Your task to perform on an android device: How big is the earth? Image 0: 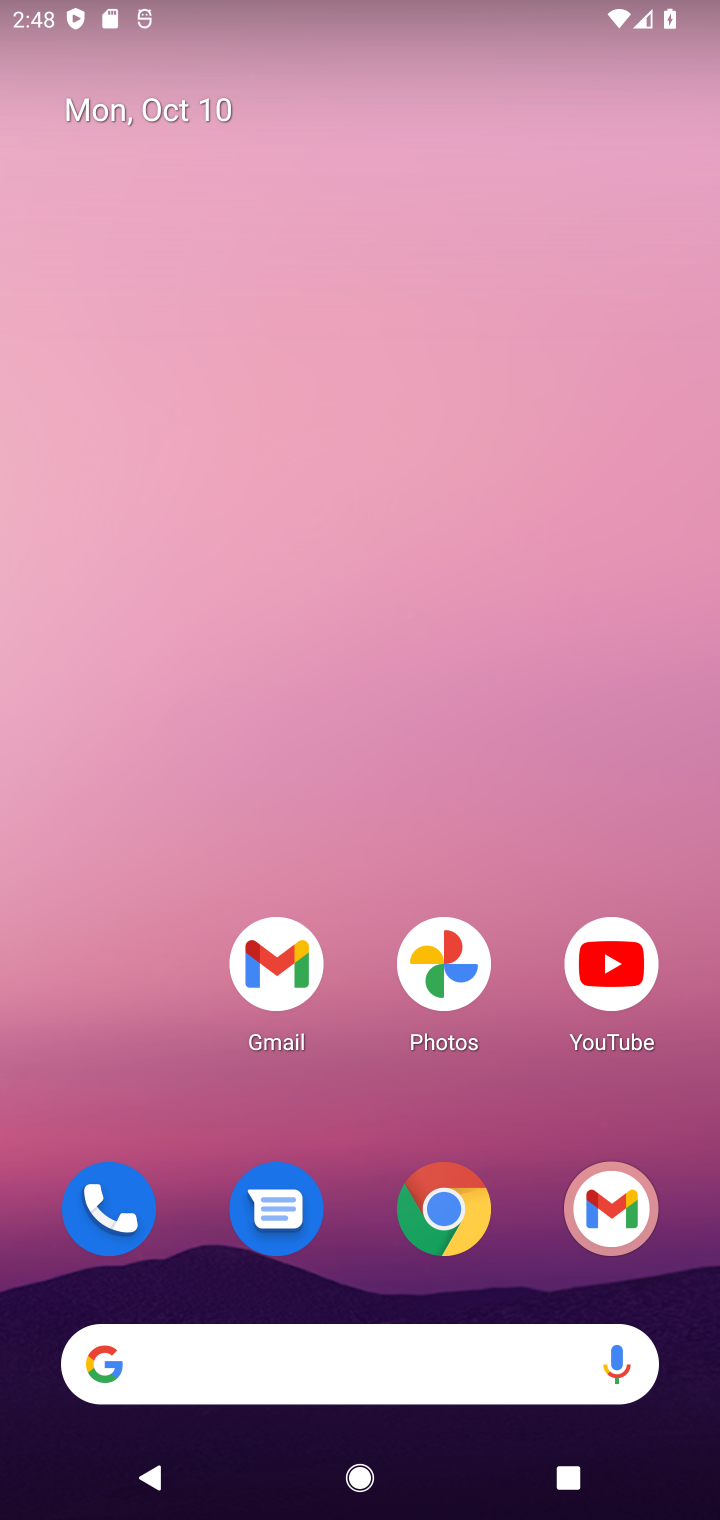
Step 0: click (459, 1199)
Your task to perform on an android device: How big is the earth? Image 1: 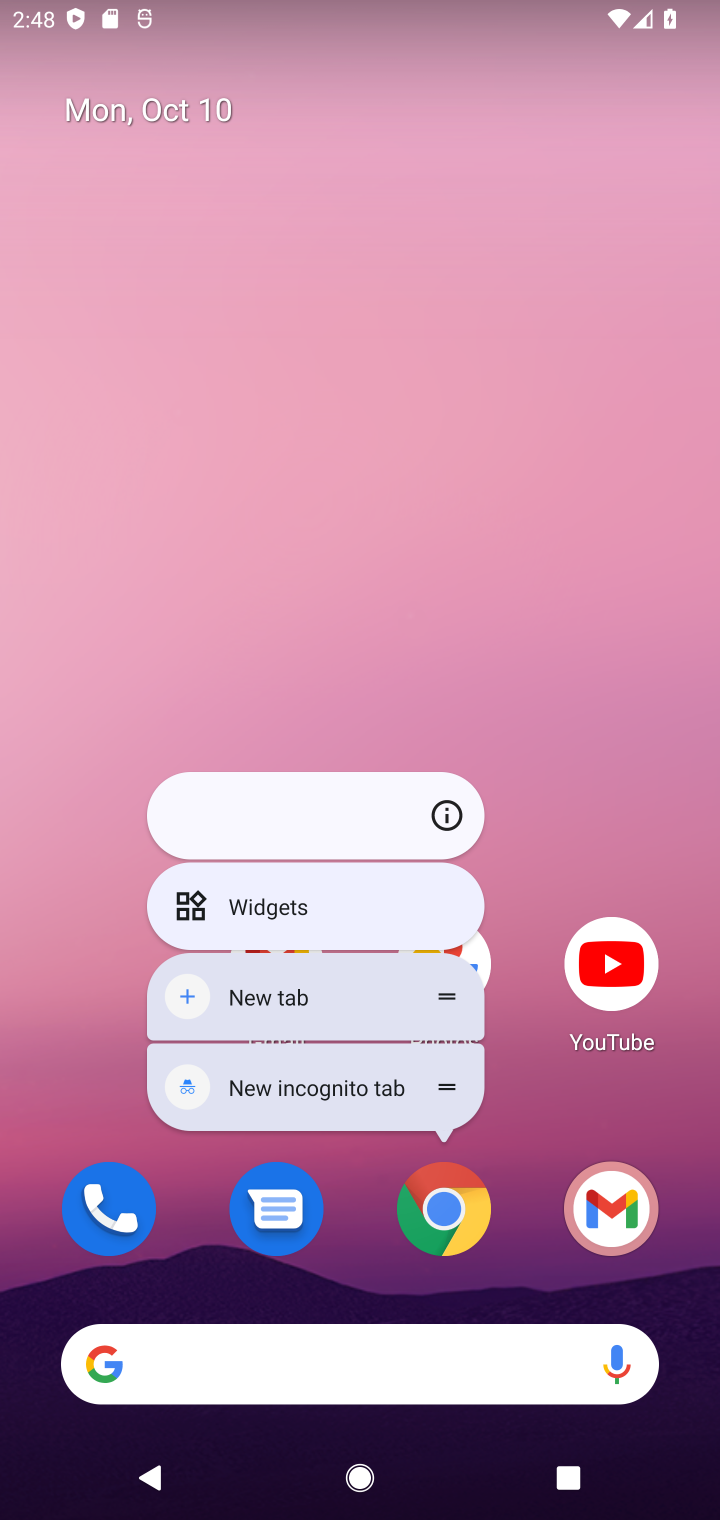
Step 1: click (431, 1222)
Your task to perform on an android device: How big is the earth? Image 2: 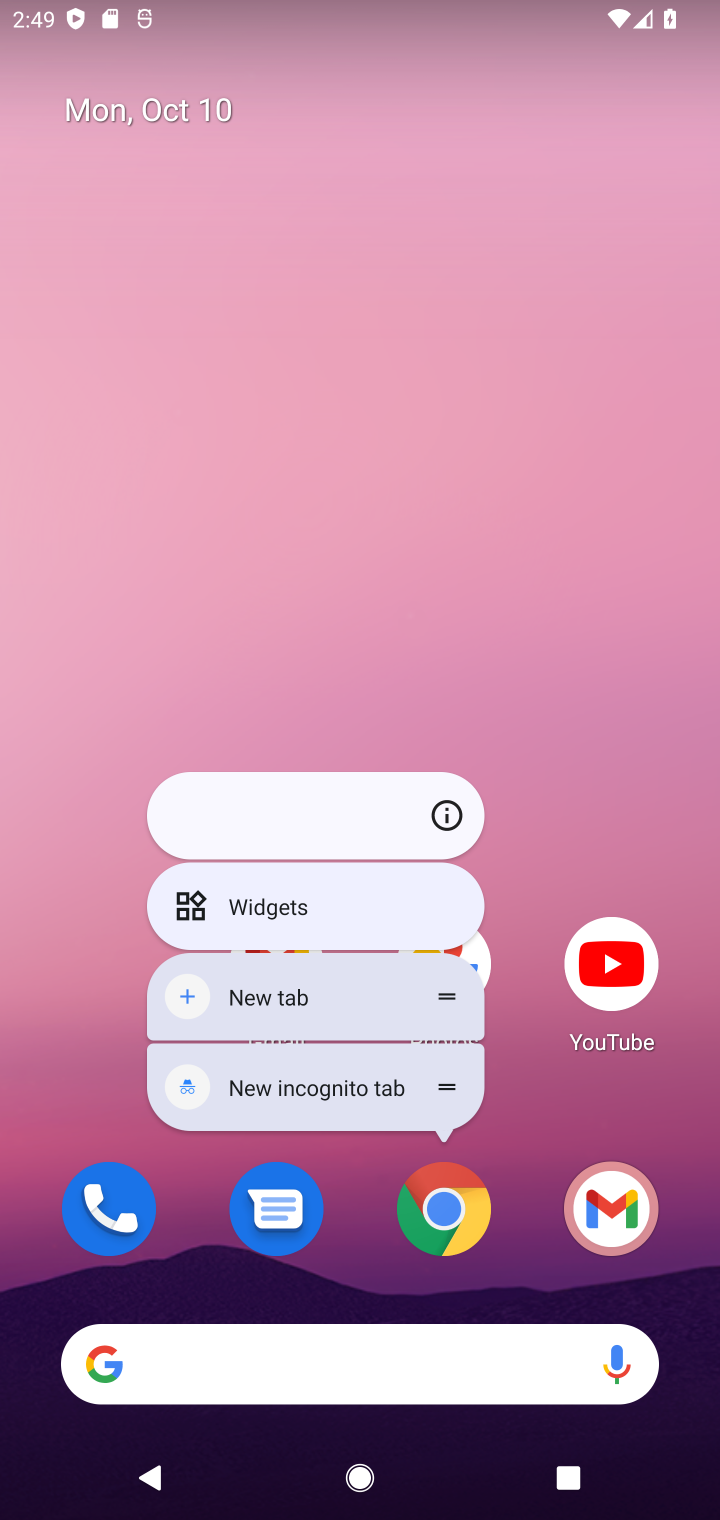
Step 2: click (431, 1222)
Your task to perform on an android device: How big is the earth? Image 3: 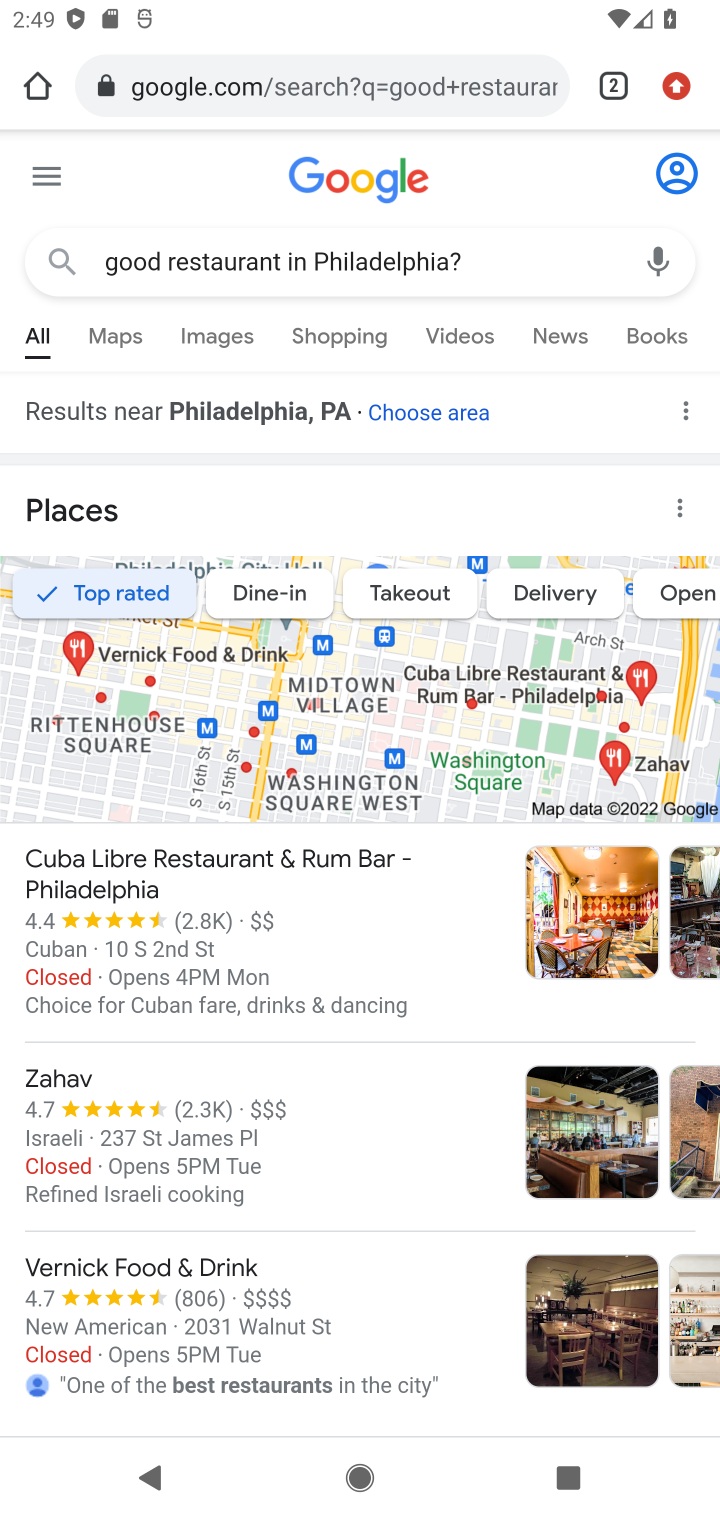
Step 3: click (477, 279)
Your task to perform on an android device: How big is the earth? Image 4: 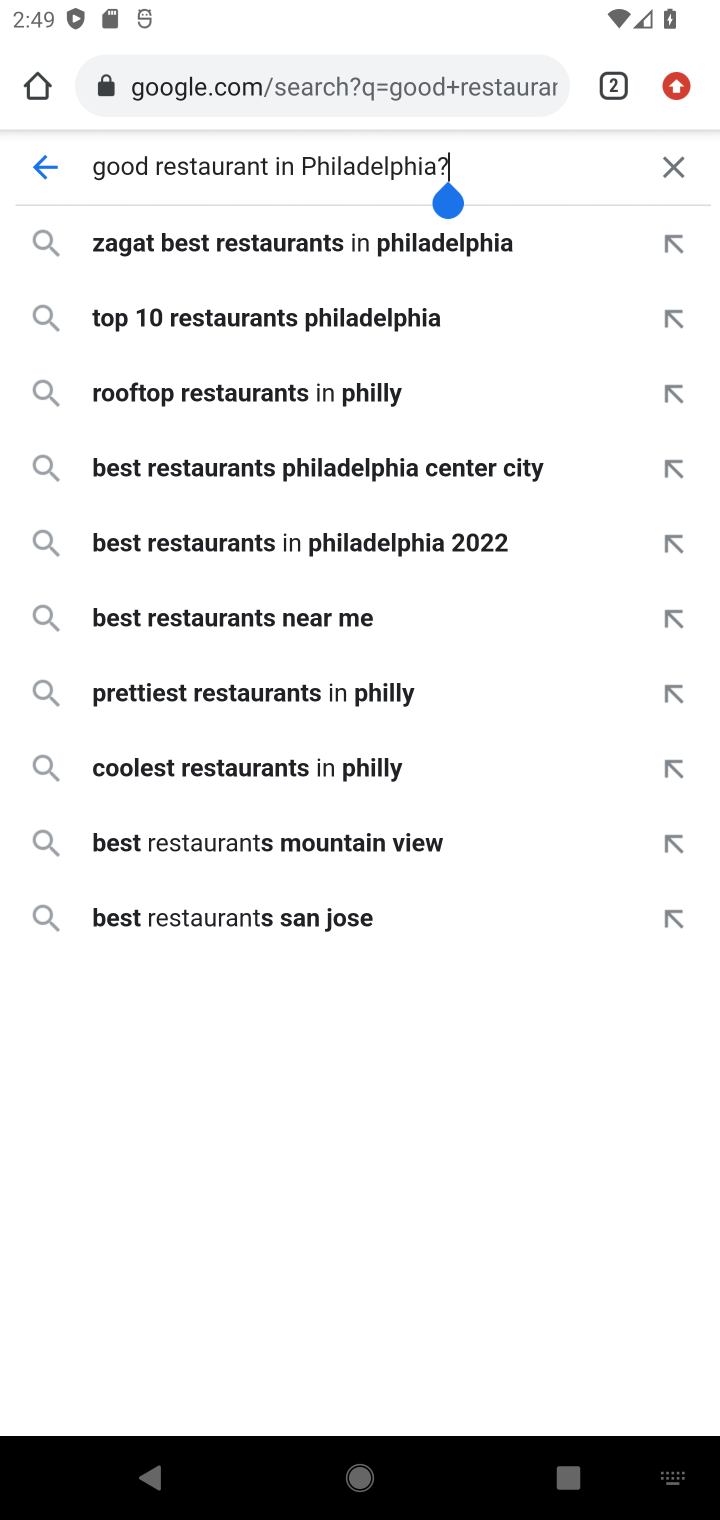
Step 4: click (672, 180)
Your task to perform on an android device: How big is the earth? Image 5: 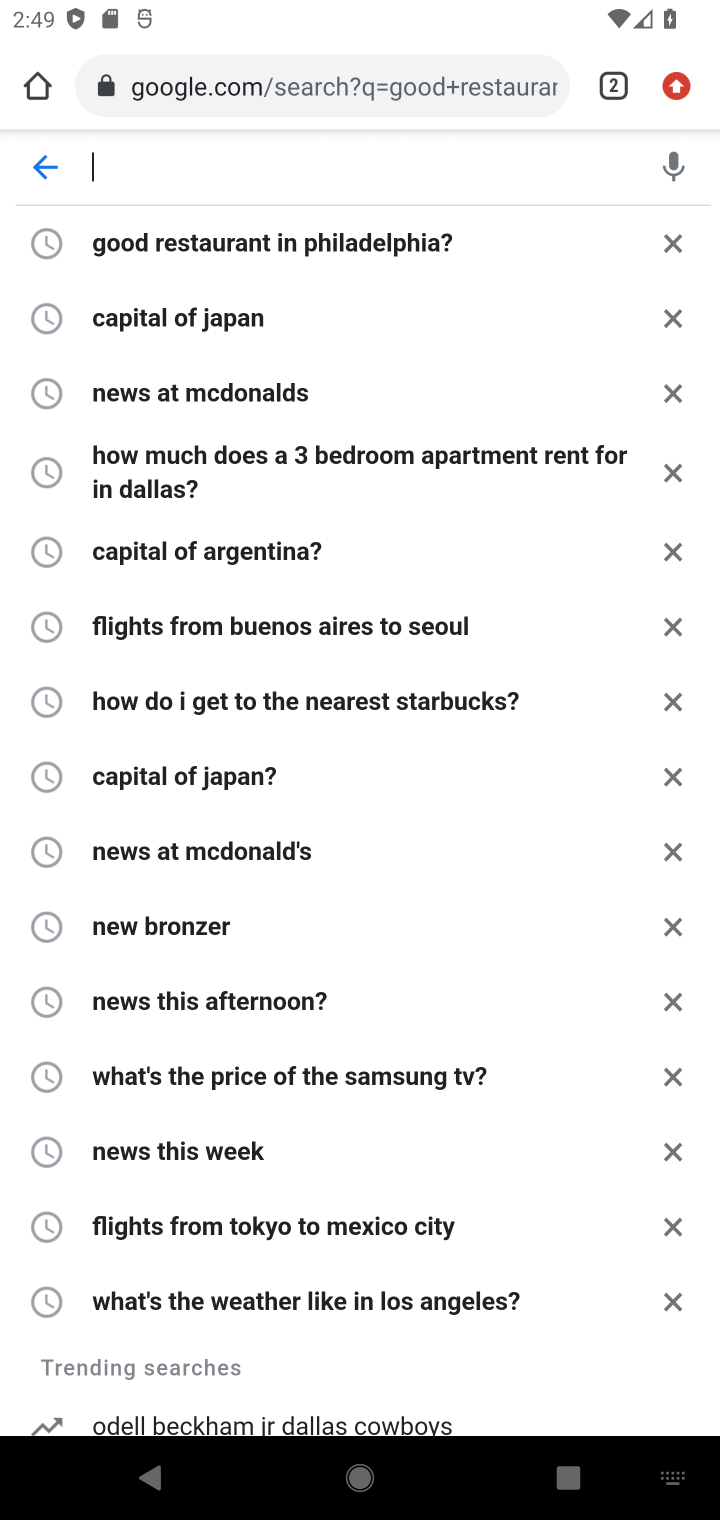
Step 5: type "How big is the earth?"
Your task to perform on an android device: How big is the earth? Image 6: 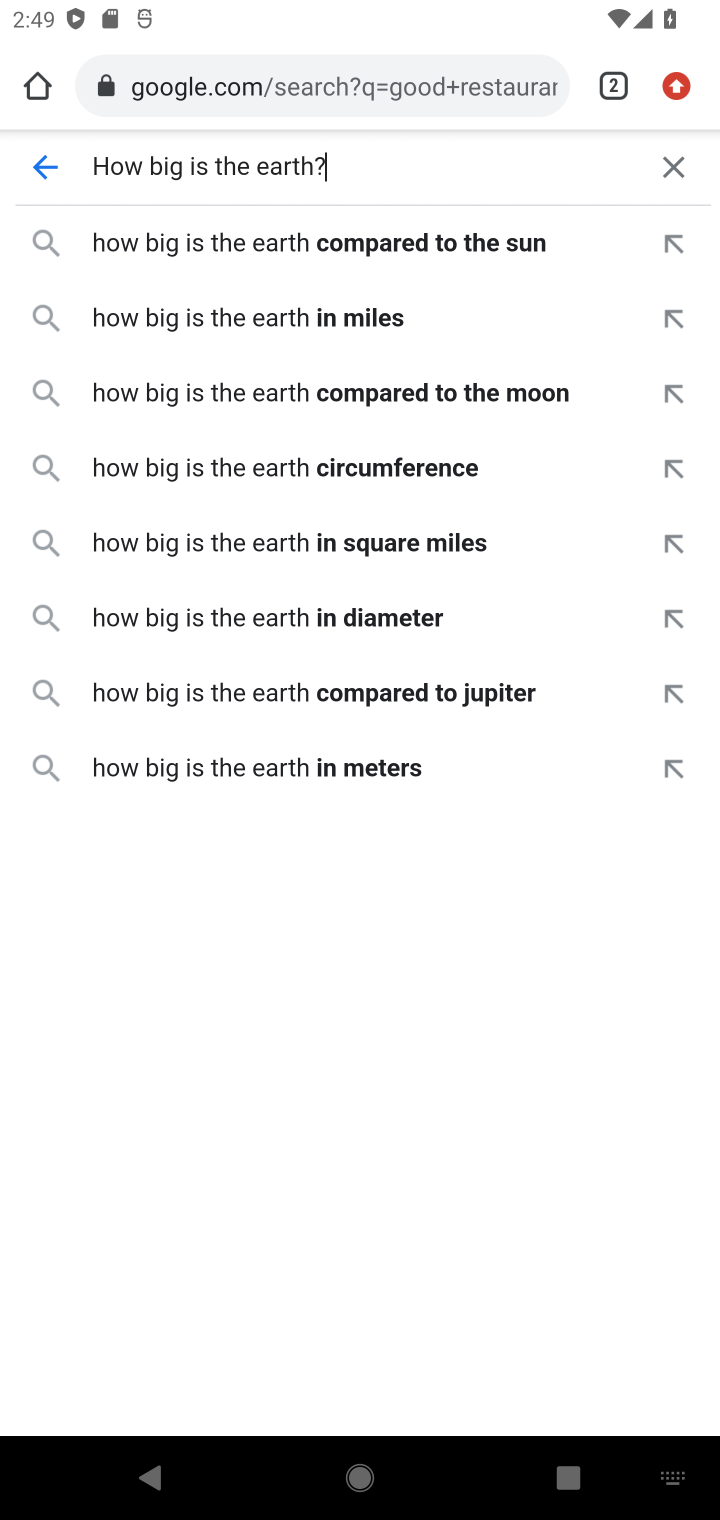
Step 6: press enter
Your task to perform on an android device: How big is the earth? Image 7: 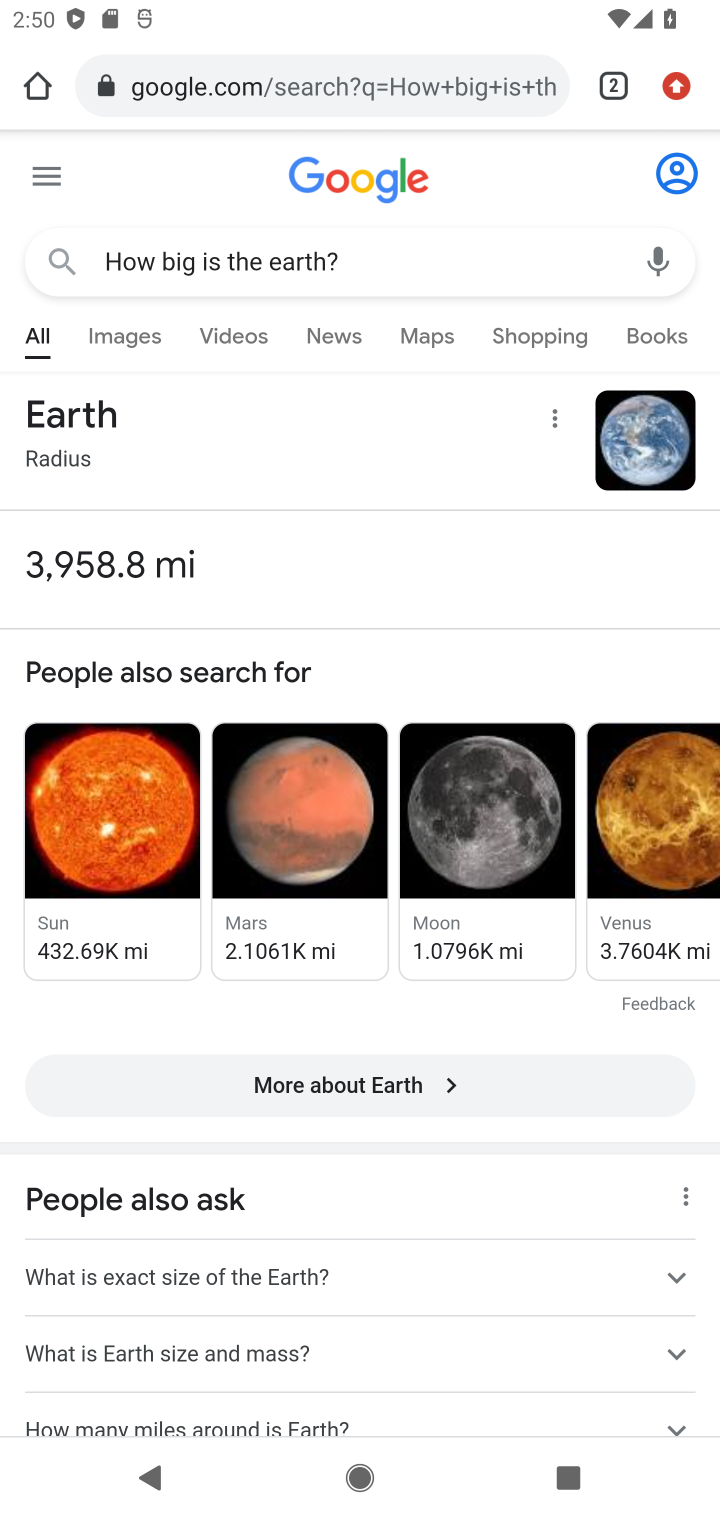
Step 7: task complete